Your task to perform on an android device: Open calendar and show me the first week of next month Image 0: 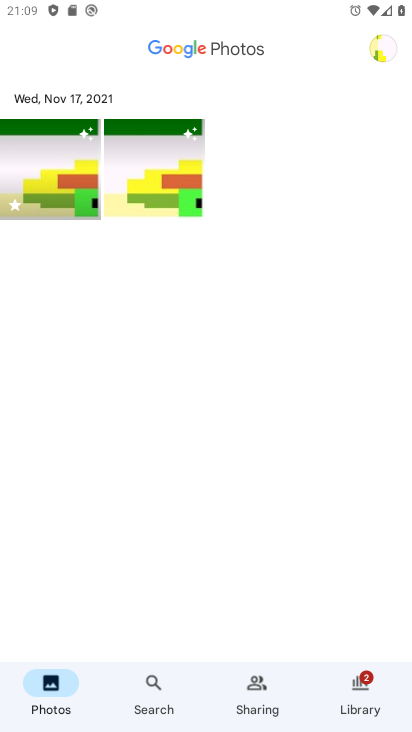
Step 0: press home button
Your task to perform on an android device: Open calendar and show me the first week of next month Image 1: 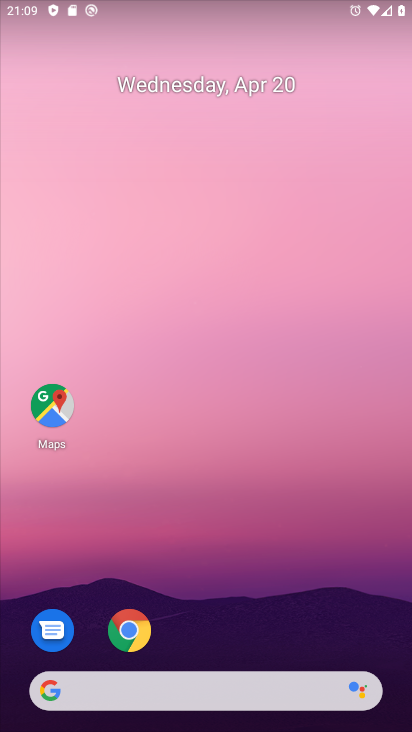
Step 1: drag from (217, 473) to (173, 99)
Your task to perform on an android device: Open calendar and show me the first week of next month Image 2: 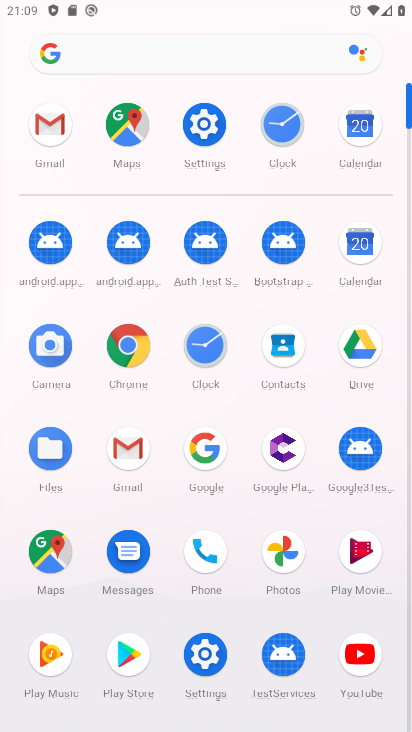
Step 2: click (356, 131)
Your task to perform on an android device: Open calendar and show me the first week of next month Image 3: 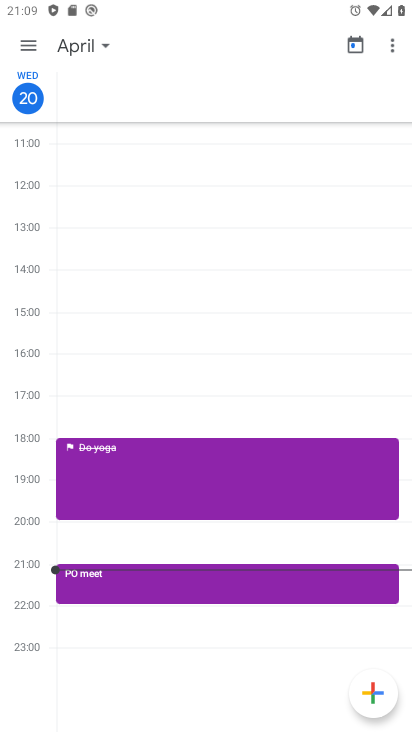
Step 3: click (90, 50)
Your task to perform on an android device: Open calendar and show me the first week of next month Image 4: 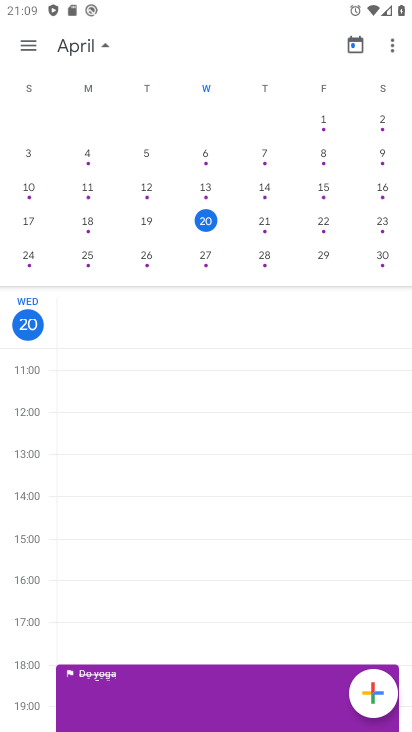
Step 4: drag from (376, 197) to (19, 180)
Your task to perform on an android device: Open calendar and show me the first week of next month Image 5: 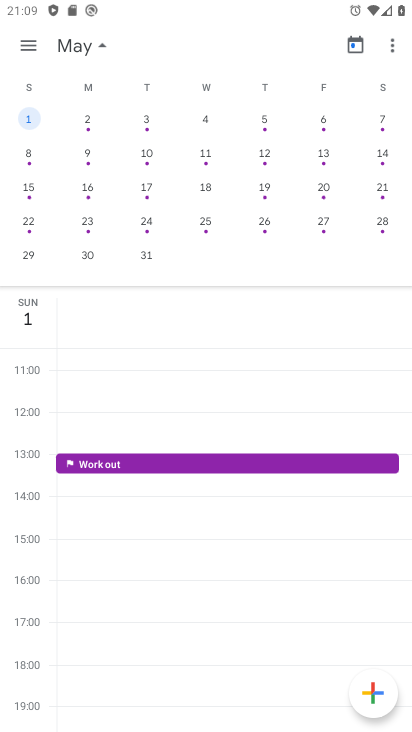
Step 5: click (29, 48)
Your task to perform on an android device: Open calendar and show me the first week of next month Image 6: 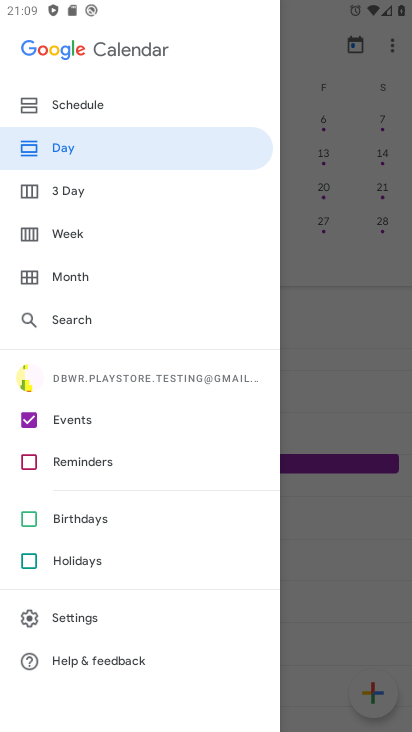
Step 6: click (88, 238)
Your task to perform on an android device: Open calendar and show me the first week of next month Image 7: 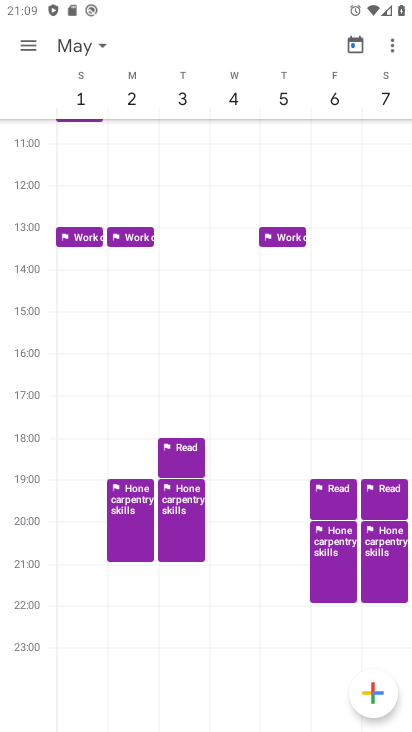
Step 7: task complete